Your task to perform on an android device: turn off airplane mode Image 0: 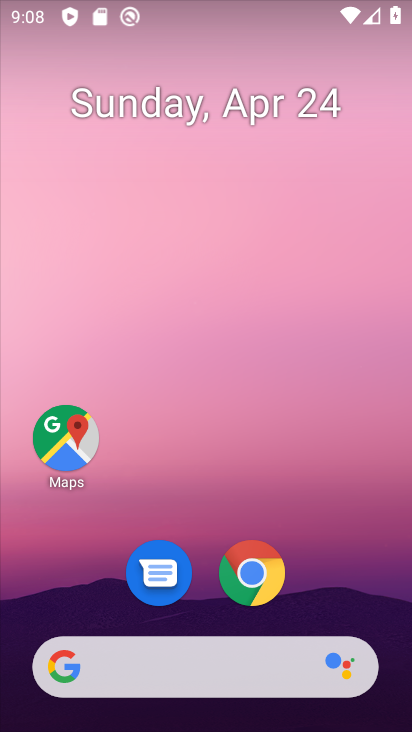
Step 0: drag from (285, 52) to (275, 496)
Your task to perform on an android device: turn off airplane mode Image 1: 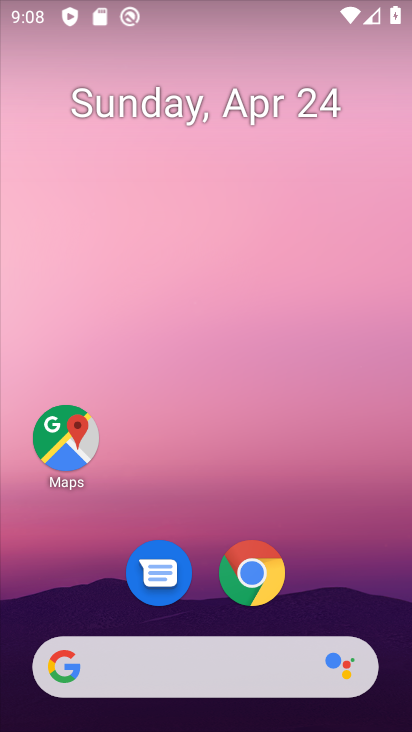
Step 1: task complete